Your task to perform on an android device: find which apps use the phone's location Image 0: 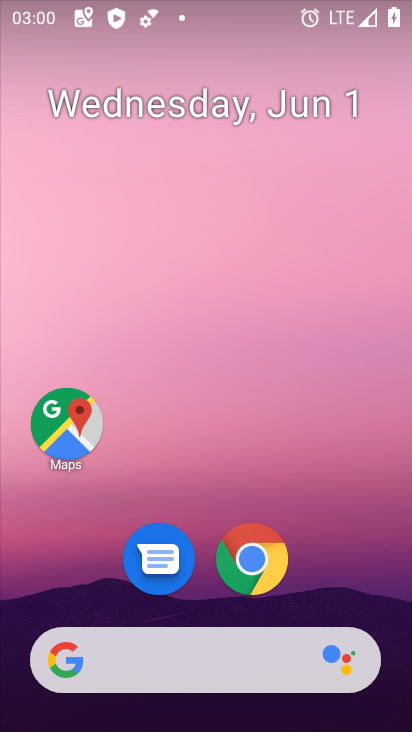
Step 0: press home button
Your task to perform on an android device: find which apps use the phone's location Image 1: 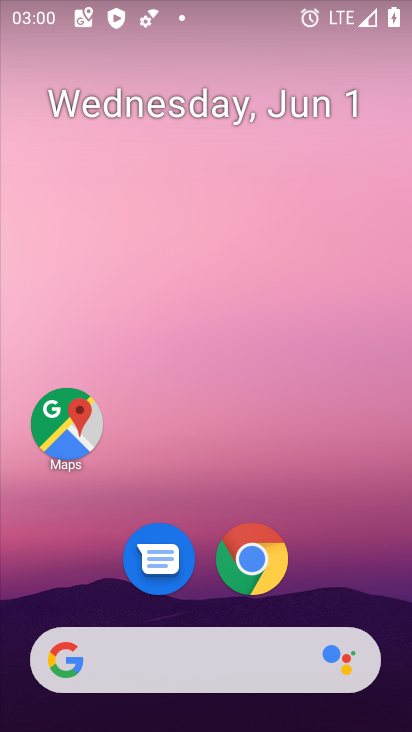
Step 1: drag from (335, 593) to (367, 187)
Your task to perform on an android device: find which apps use the phone's location Image 2: 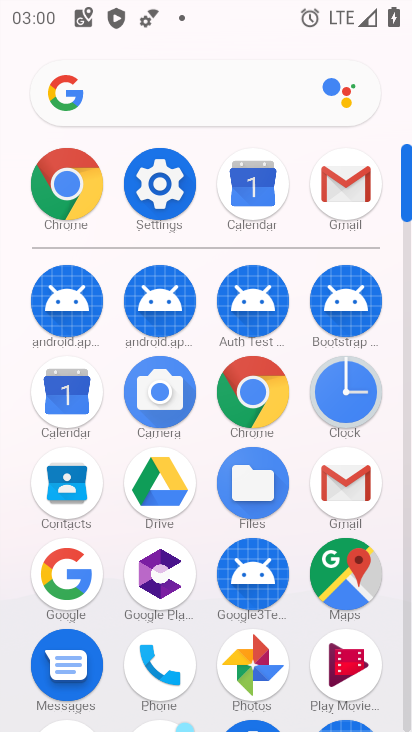
Step 2: click (156, 189)
Your task to perform on an android device: find which apps use the phone's location Image 3: 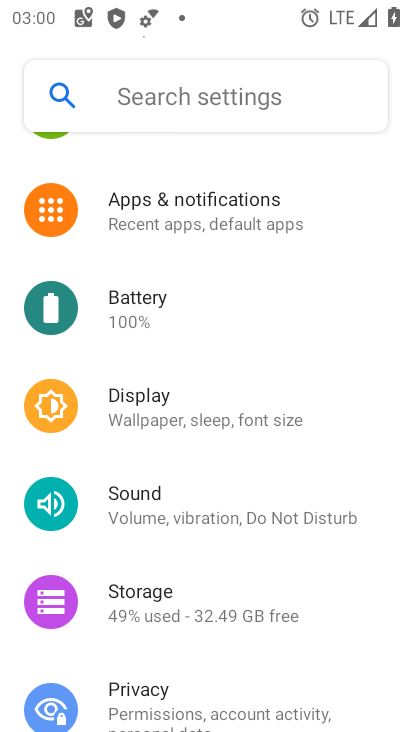
Step 3: drag from (283, 635) to (274, 368)
Your task to perform on an android device: find which apps use the phone's location Image 4: 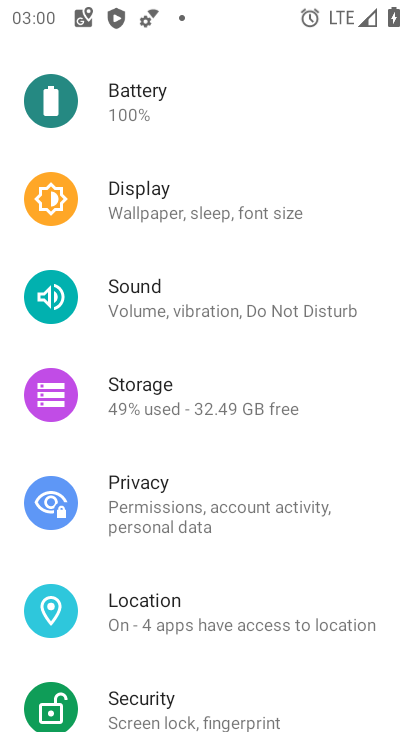
Step 4: click (169, 629)
Your task to perform on an android device: find which apps use the phone's location Image 5: 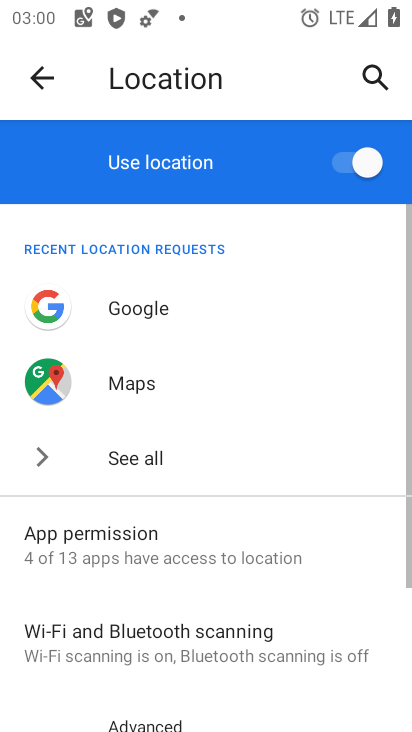
Step 5: drag from (323, 639) to (331, 381)
Your task to perform on an android device: find which apps use the phone's location Image 6: 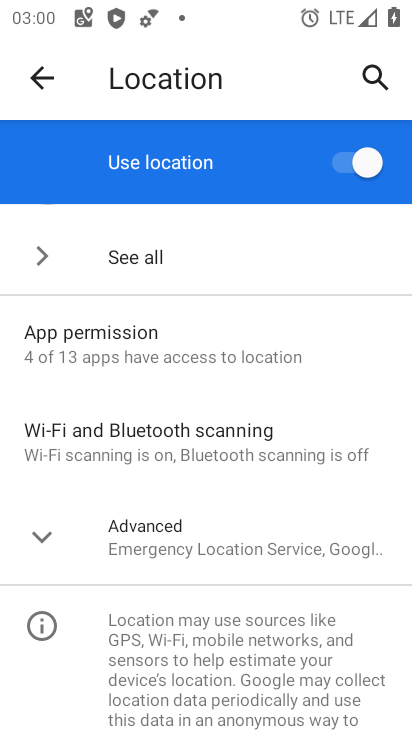
Step 6: click (91, 337)
Your task to perform on an android device: find which apps use the phone's location Image 7: 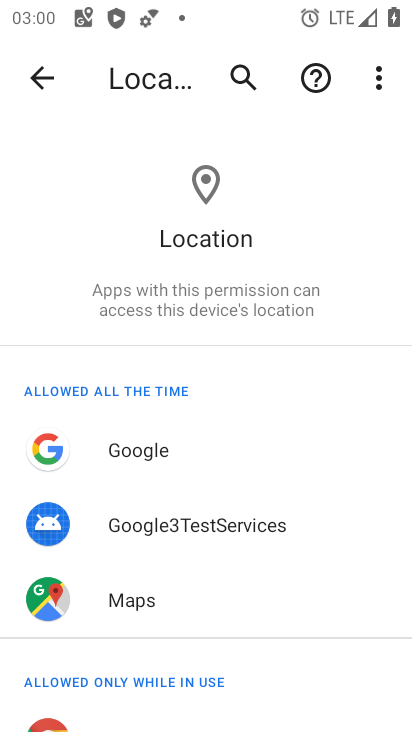
Step 7: task complete